Your task to perform on an android device: turn off data saver in the chrome app Image 0: 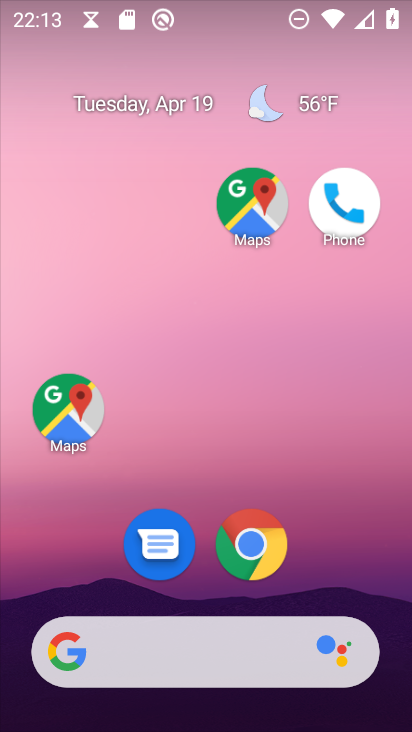
Step 0: drag from (153, 649) to (324, 71)
Your task to perform on an android device: turn off data saver in the chrome app Image 1: 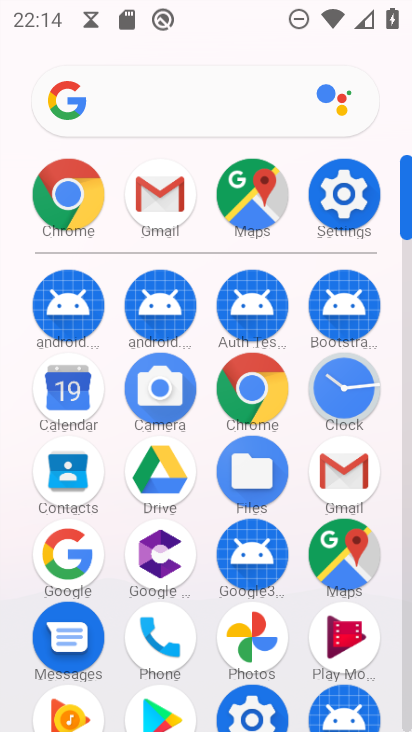
Step 1: click (83, 205)
Your task to perform on an android device: turn off data saver in the chrome app Image 2: 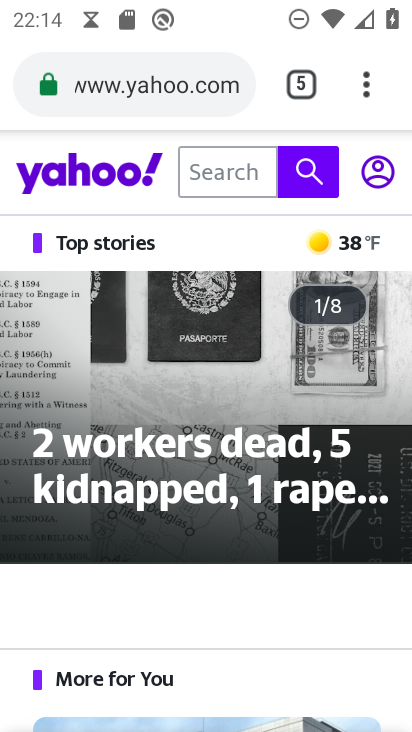
Step 2: click (366, 86)
Your task to perform on an android device: turn off data saver in the chrome app Image 3: 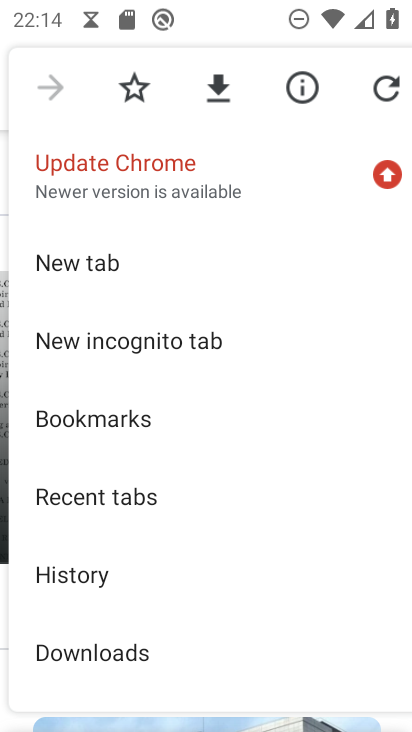
Step 3: drag from (191, 600) to (329, 118)
Your task to perform on an android device: turn off data saver in the chrome app Image 4: 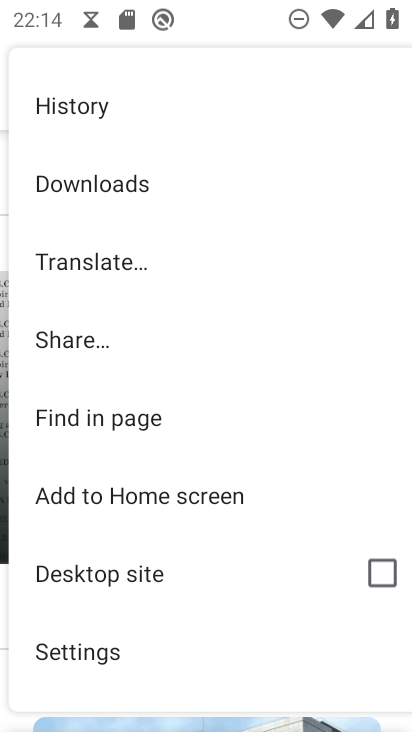
Step 4: click (99, 647)
Your task to perform on an android device: turn off data saver in the chrome app Image 5: 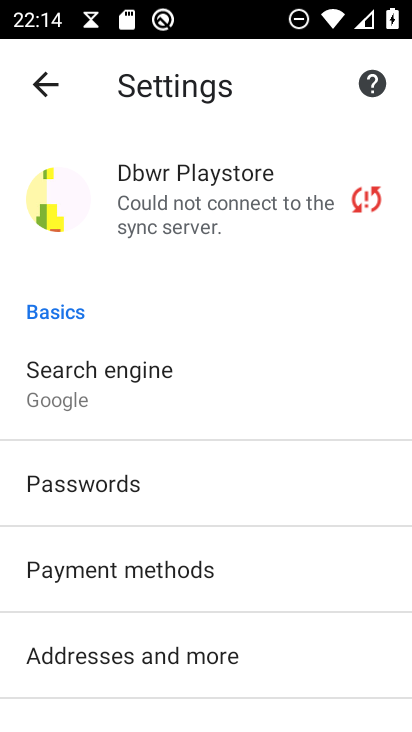
Step 5: drag from (143, 663) to (371, 184)
Your task to perform on an android device: turn off data saver in the chrome app Image 6: 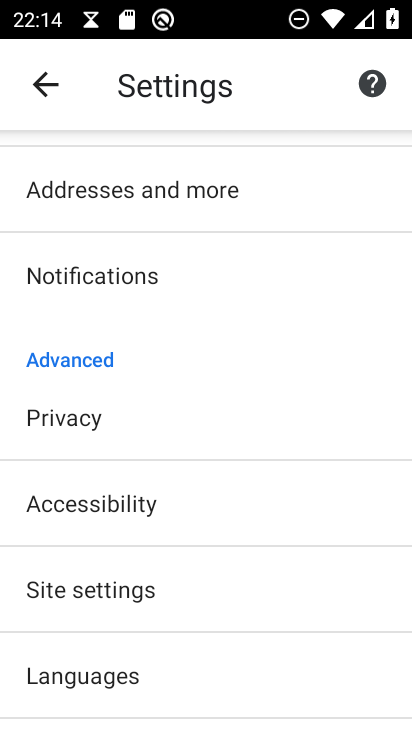
Step 6: drag from (183, 633) to (357, 180)
Your task to perform on an android device: turn off data saver in the chrome app Image 7: 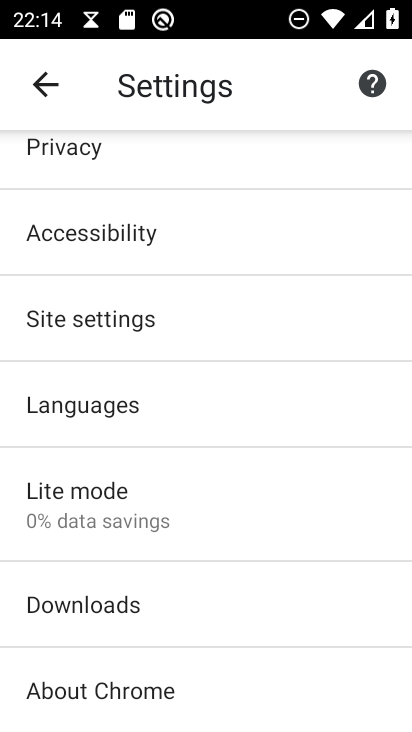
Step 7: click (96, 500)
Your task to perform on an android device: turn off data saver in the chrome app Image 8: 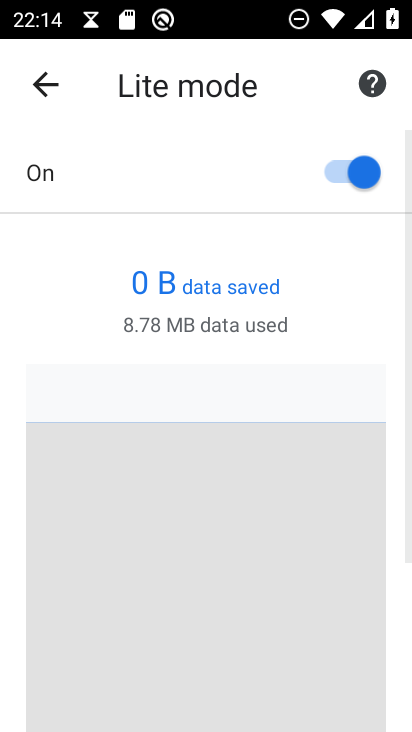
Step 8: click (330, 172)
Your task to perform on an android device: turn off data saver in the chrome app Image 9: 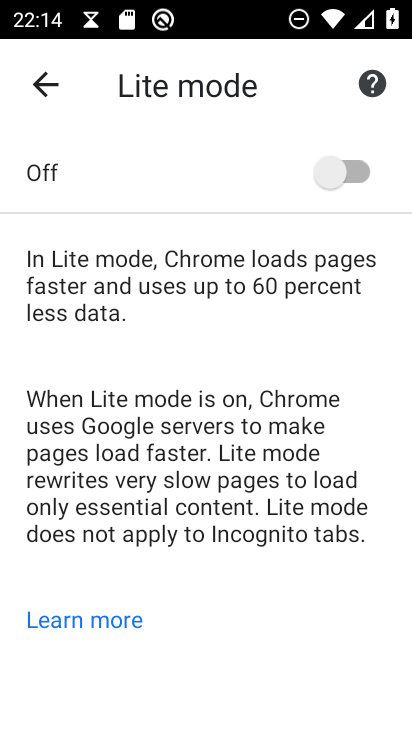
Step 9: task complete